Your task to perform on an android device: empty trash in the gmail app Image 0: 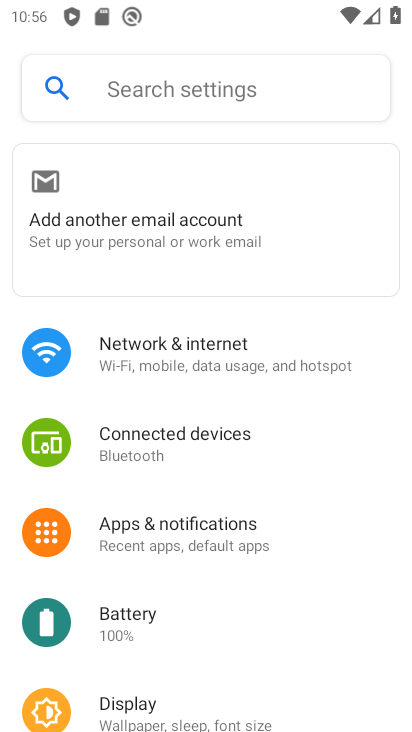
Step 0: press home button
Your task to perform on an android device: empty trash in the gmail app Image 1: 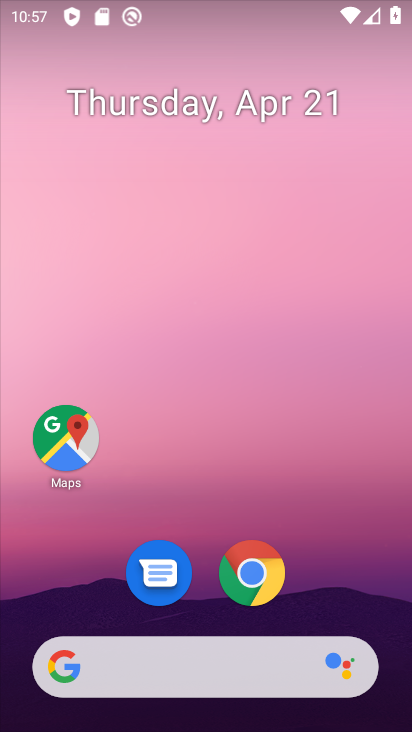
Step 1: drag from (353, 567) to (299, 66)
Your task to perform on an android device: empty trash in the gmail app Image 2: 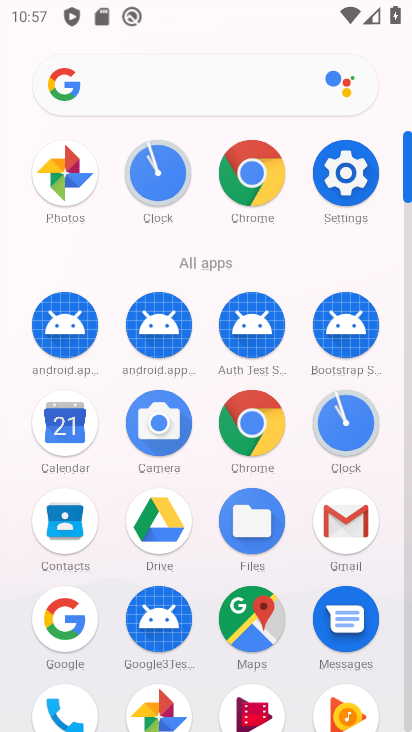
Step 2: click (350, 522)
Your task to perform on an android device: empty trash in the gmail app Image 3: 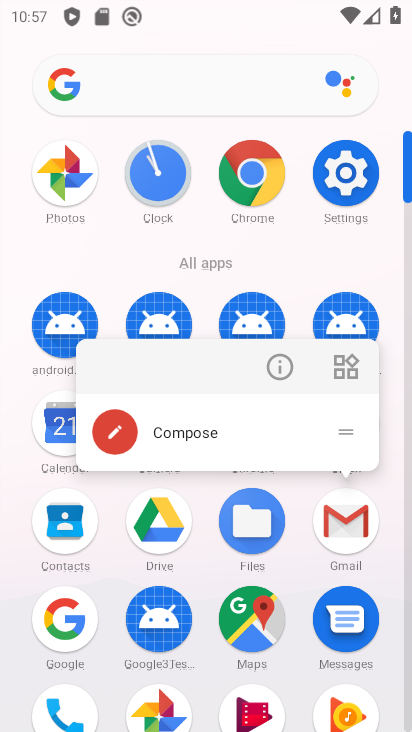
Step 3: click (350, 522)
Your task to perform on an android device: empty trash in the gmail app Image 4: 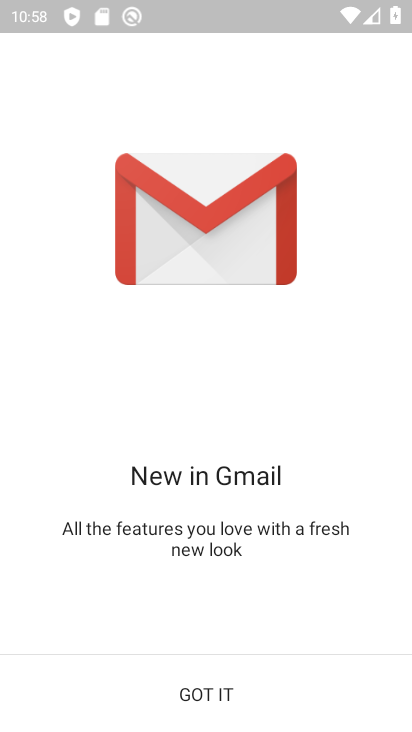
Step 4: click (238, 682)
Your task to perform on an android device: empty trash in the gmail app Image 5: 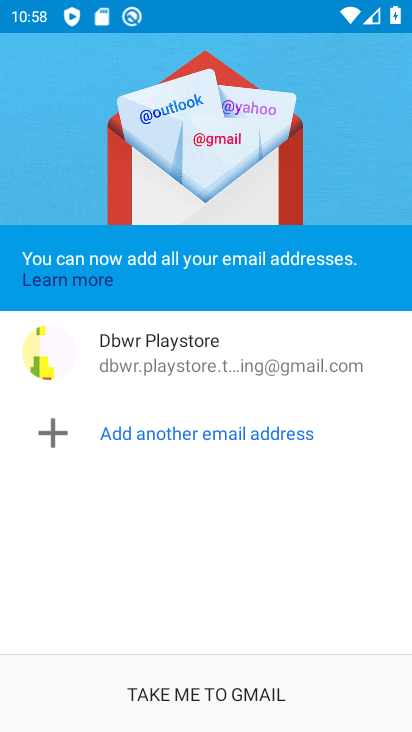
Step 5: click (238, 682)
Your task to perform on an android device: empty trash in the gmail app Image 6: 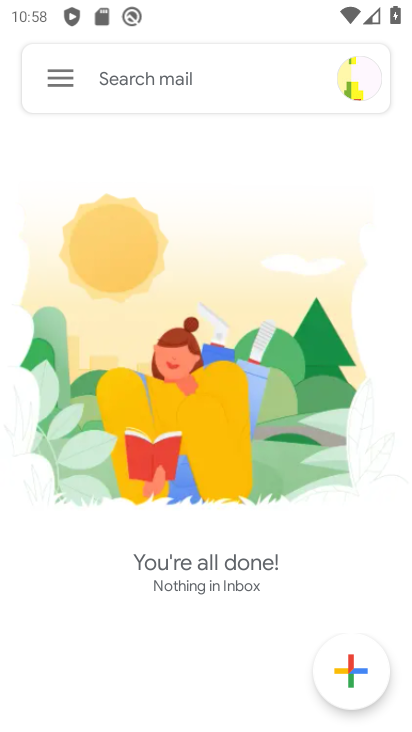
Step 6: click (56, 66)
Your task to perform on an android device: empty trash in the gmail app Image 7: 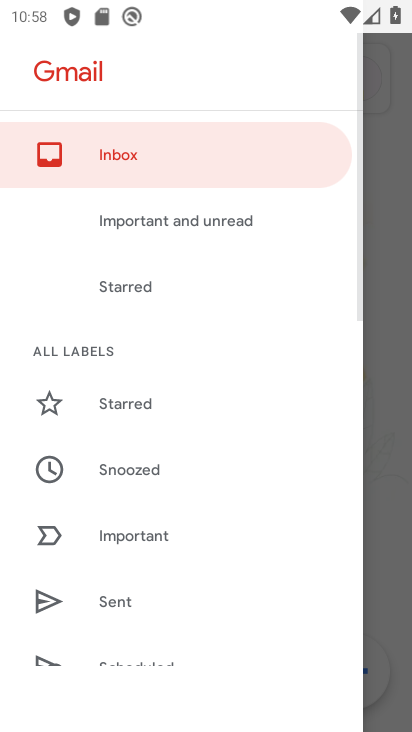
Step 7: drag from (191, 507) to (235, 311)
Your task to perform on an android device: empty trash in the gmail app Image 8: 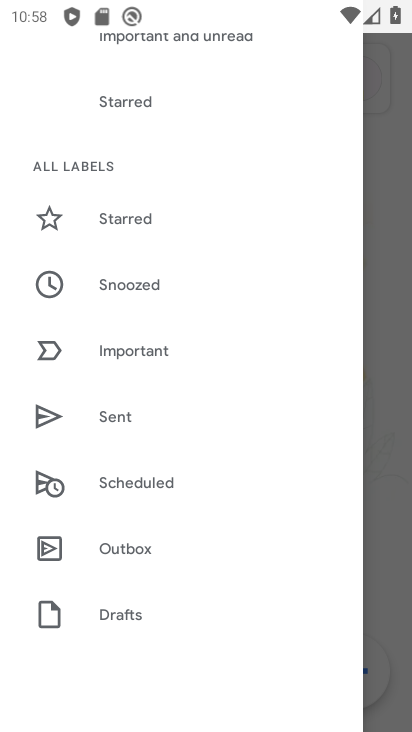
Step 8: drag from (213, 488) to (234, 208)
Your task to perform on an android device: empty trash in the gmail app Image 9: 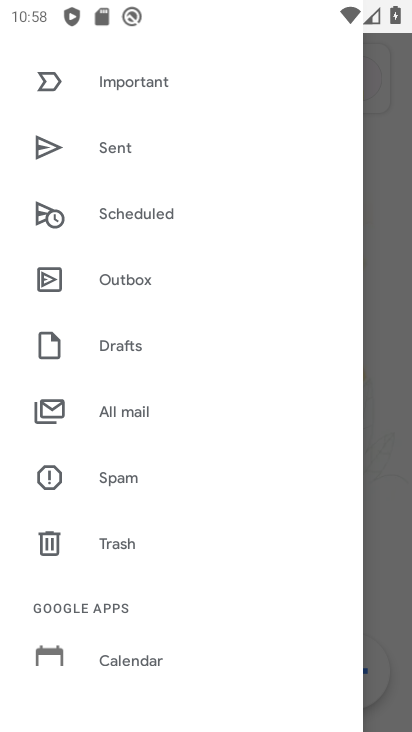
Step 9: click (121, 545)
Your task to perform on an android device: empty trash in the gmail app Image 10: 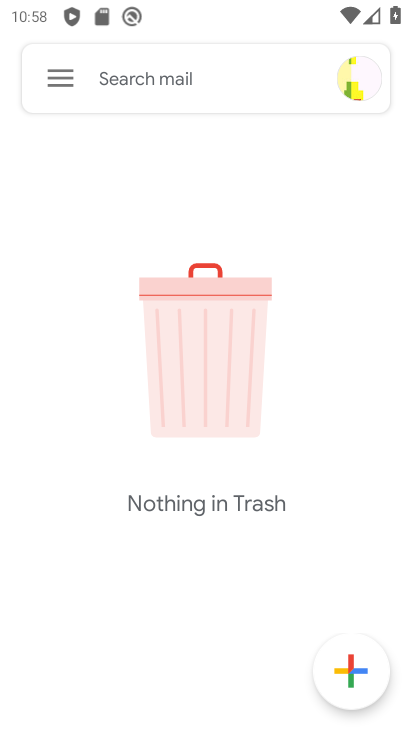
Step 10: task complete